Your task to perform on an android device: check android version Image 0: 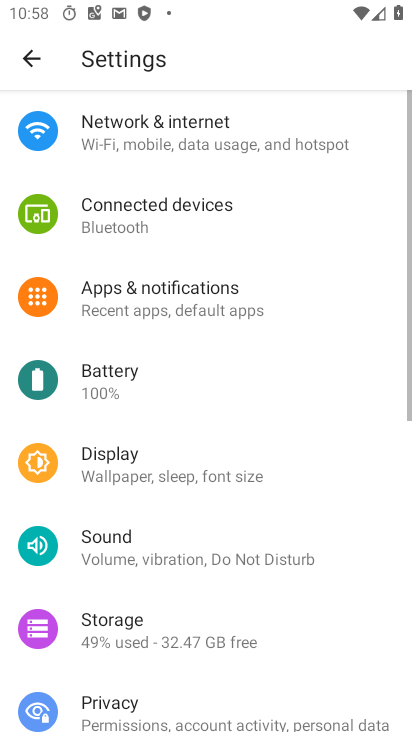
Step 0: drag from (280, 600) to (281, 92)
Your task to perform on an android device: check android version Image 1: 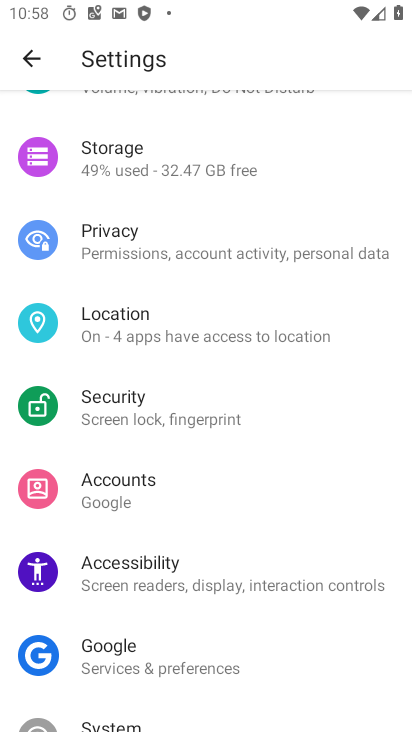
Step 1: drag from (218, 595) to (270, 55)
Your task to perform on an android device: check android version Image 2: 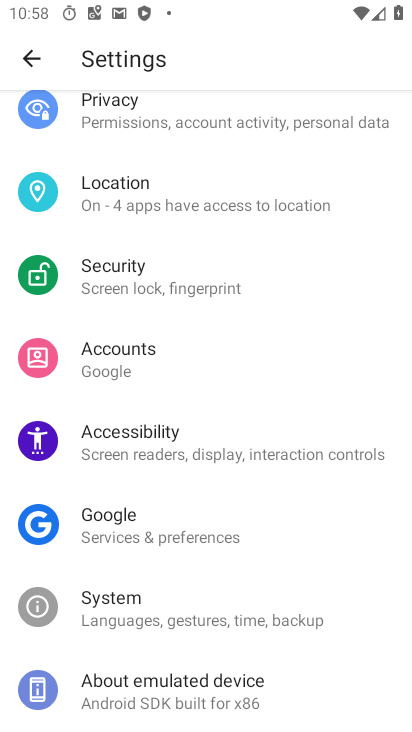
Step 2: click (202, 687)
Your task to perform on an android device: check android version Image 3: 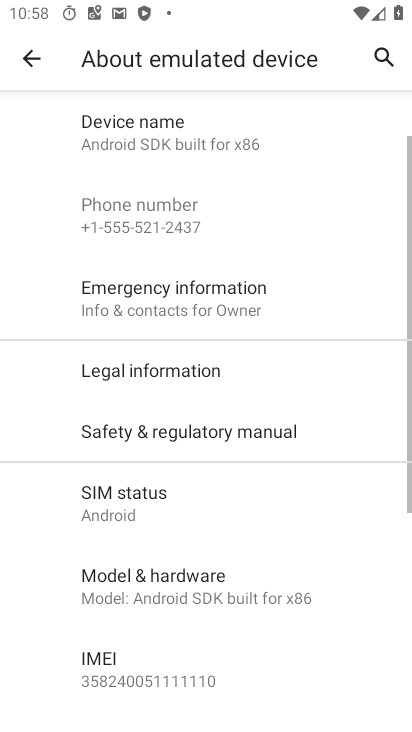
Step 3: drag from (205, 170) to (205, 575)
Your task to perform on an android device: check android version Image 4: 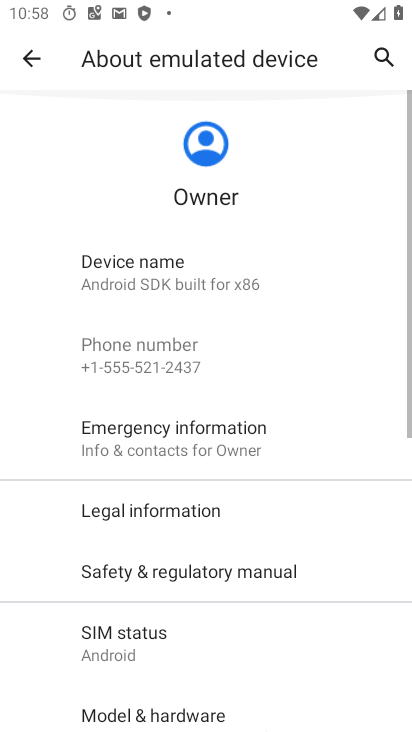
Step 4: drag from (286, 589) to (285, 177)
Your task to perform on an android device: check android version Image 5: 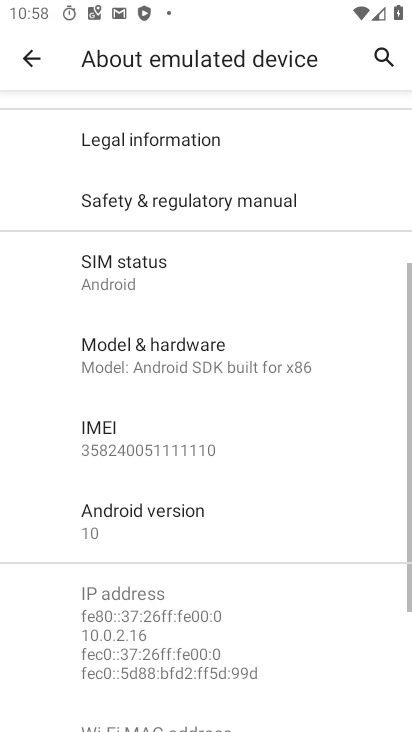
Step 5: click (173, 512)
Your task to perform on an android device: check android version Image 6: 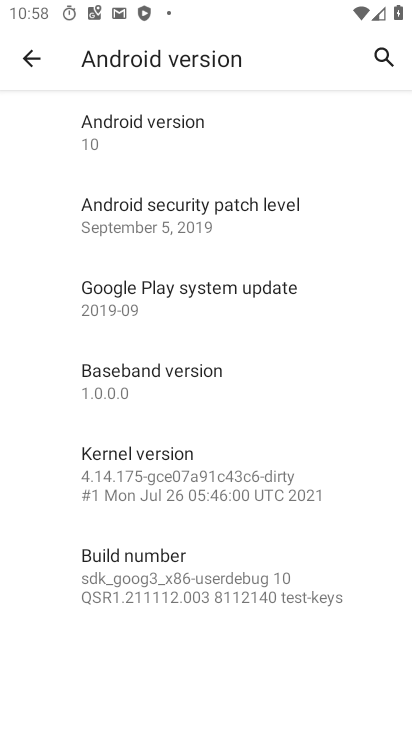
Step 6: task complete